Your task to perform on an android device: turn pop-ups off in chrome Image 0: 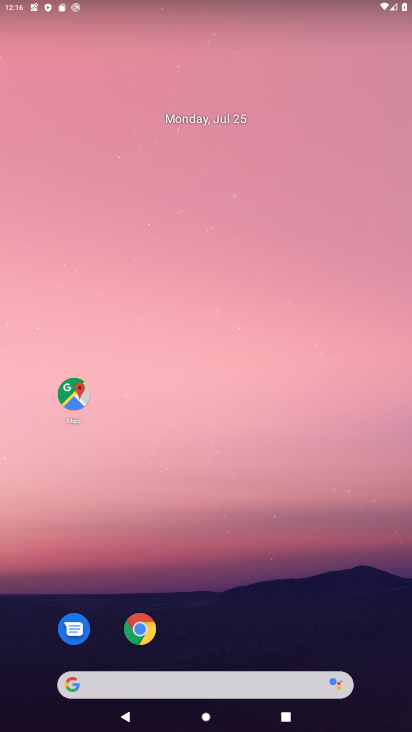
Step 0: click (149, 629)
Your task to perform on an android device: turn pop-ups off in chrome Image 1: 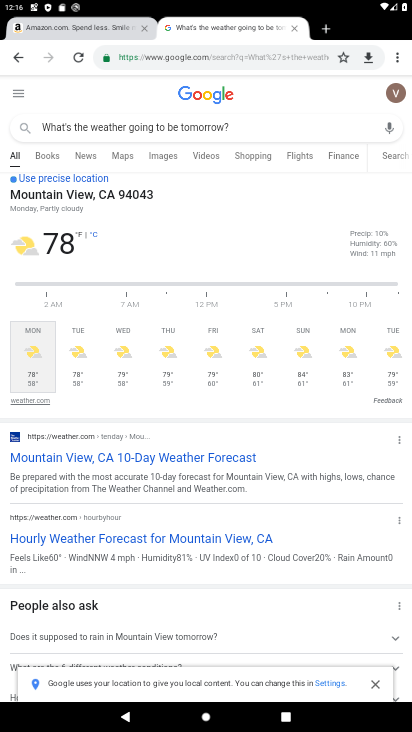
Step 1: click (397, 55)
Your task to perform on an android device: turn pop-ups off in chrome Image 2: 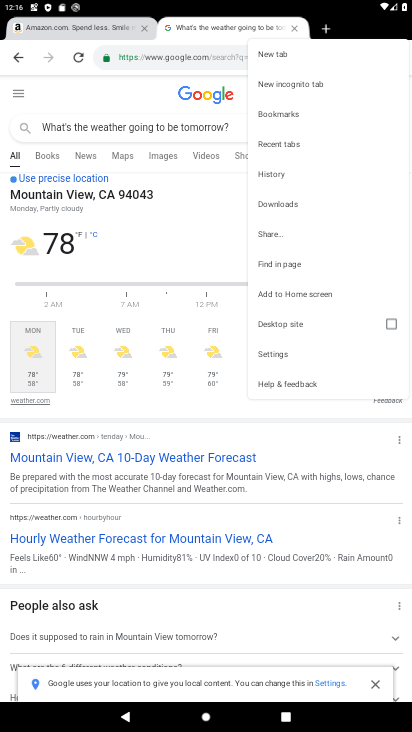
Step 2: click (302, 358)
Your task to perform on an android device: turn pop-ups off in chrome Image 3: 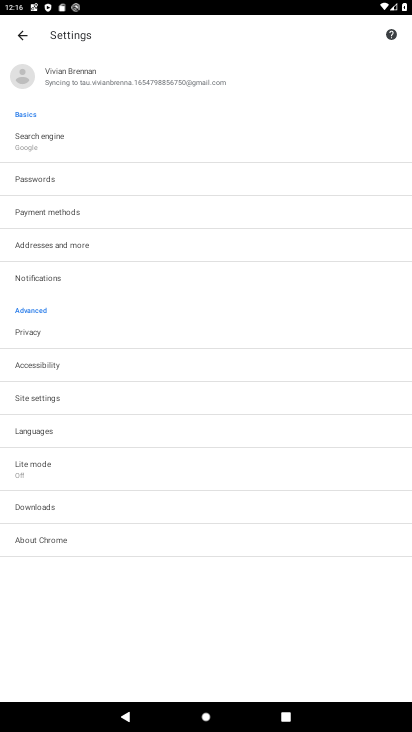
Step 3: click (189, 399)
Your task to perform on an android device: turn pop-ups off in chrome Image 4: 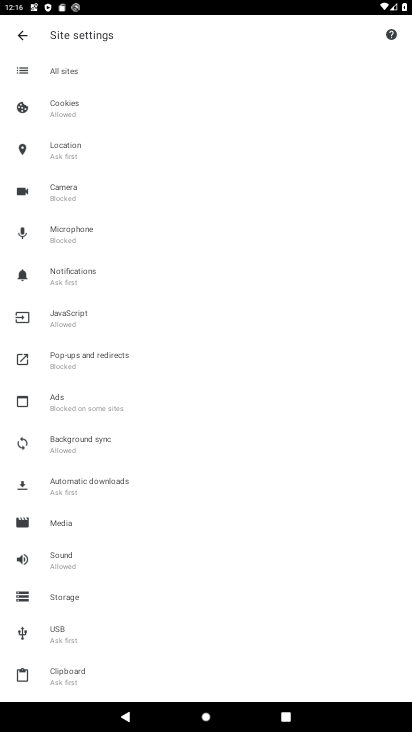
Step 4: click (134, 359)
Your task to perform on an android device: turn pop-ups off in chrome Image 5: 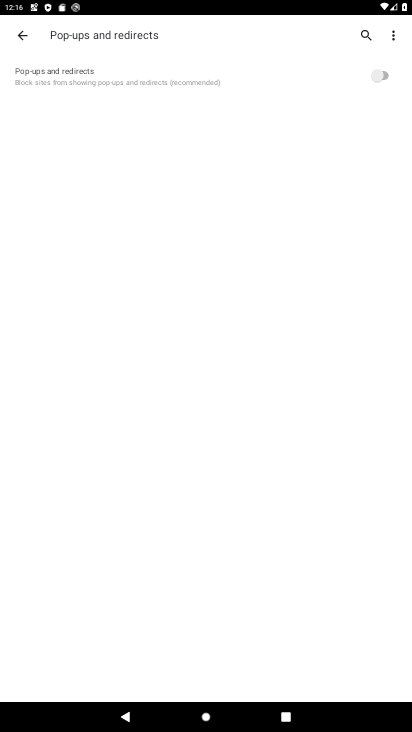
Step 5: task complete